Your task to perform on an android device: toggle notification dots Image 0: 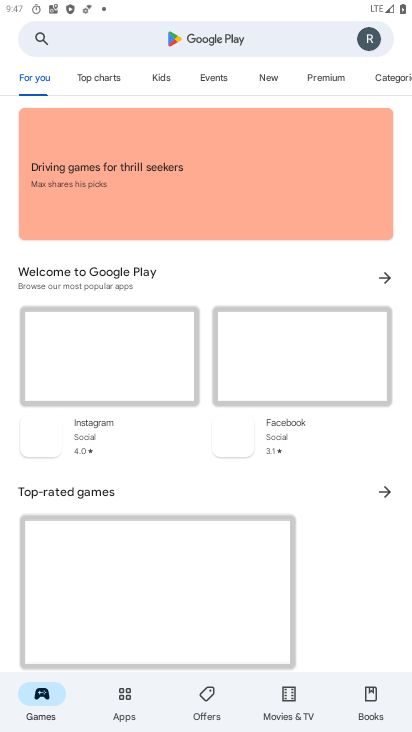
Step 0: press home button
Your task to perform on an android device: toggle notification dots Image 1: 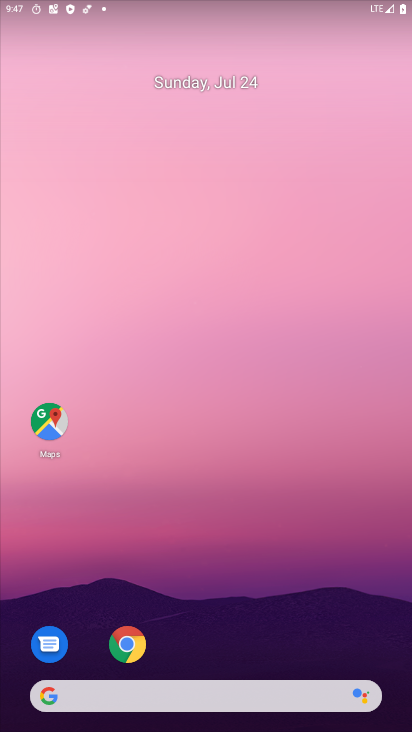
Step 1: drag from (218, 576) to (217, 289)
Your task to perform on an android device: toggle notification dots Image 2: 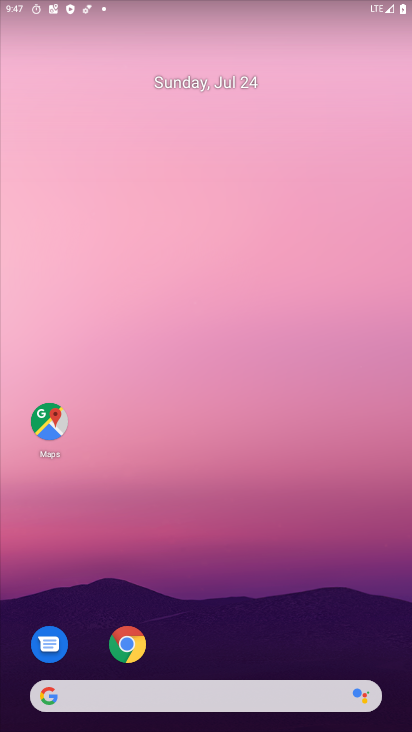
Step 2: drag from (218, 665) to (250, 169)
Your task to perform on an android device: toggle notification dots Image 3: 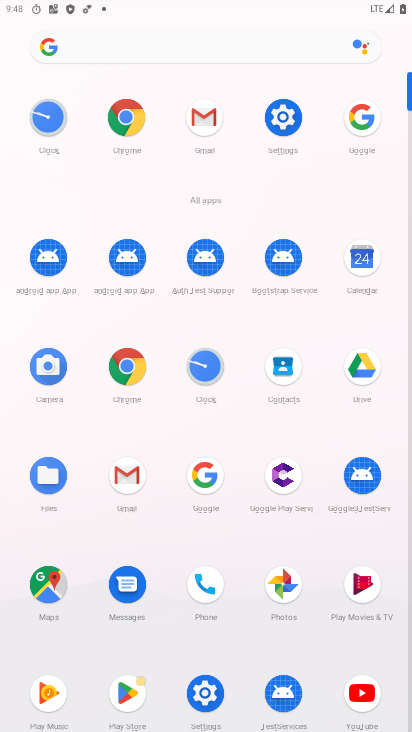
Step 3: click (291, 121)
Your task to perform on an android device: toggle notification dots Image 4: 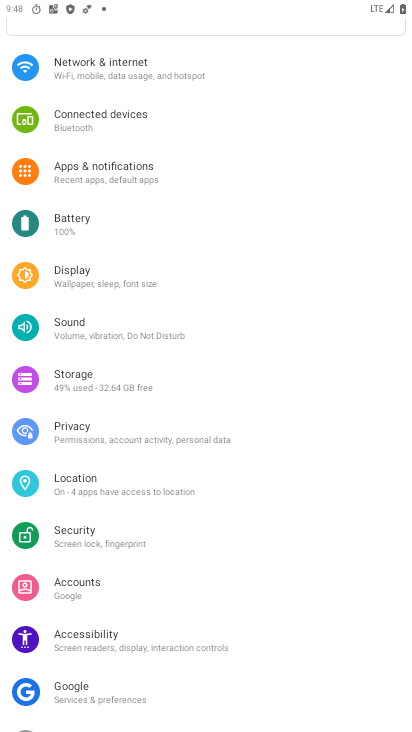
Step 4: click (125, 161)
Your task to perform on an android device: toggle notification dots Image 5: 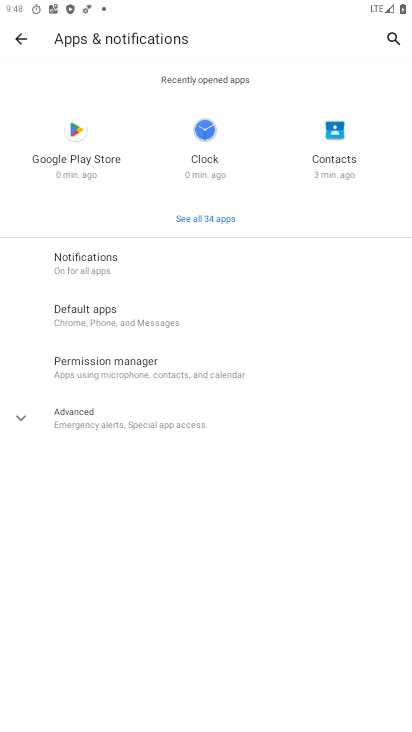
Step 5: click (89, 408)
Your task to perform on an android device: toggle notification dots Image 6: 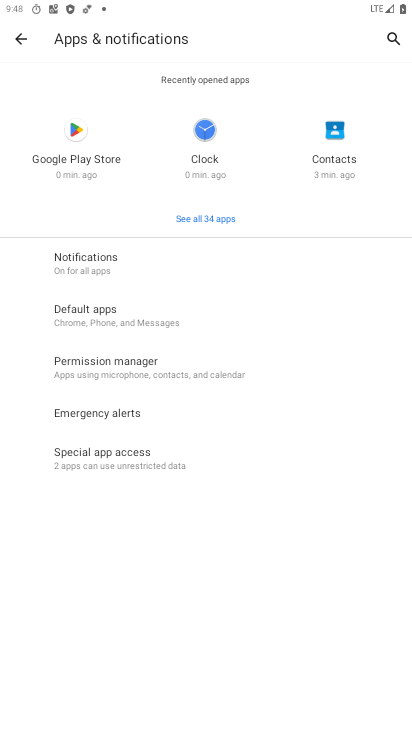
Step 6: click (85, 259)
Your task to perform on an android device: toggle notification dots Image 7: 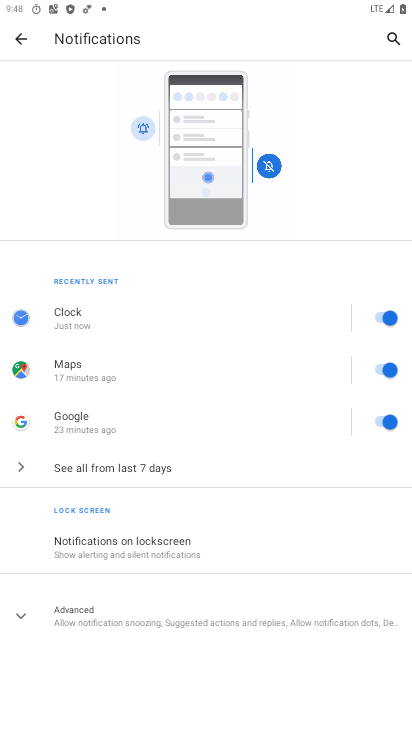
Step 7: click (95, 620)
Your task to perform on an android device: toggle notification dots Image 8: 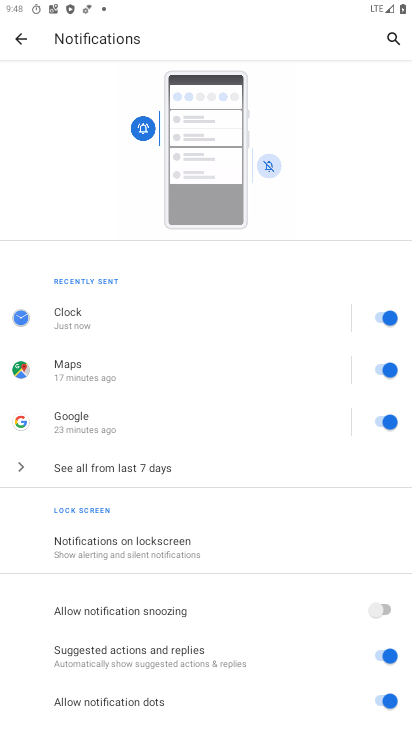
Step 8: drag from (130, 702) to (165, 373)
Your task to perform on an android device: toggle notification dots Image 9: 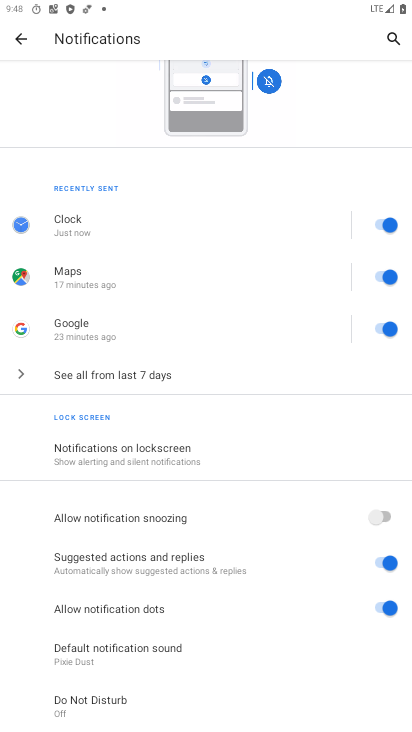
Step 9: click (388, 605)
Your task to perform on an android device: toggle notification dots Image 10: 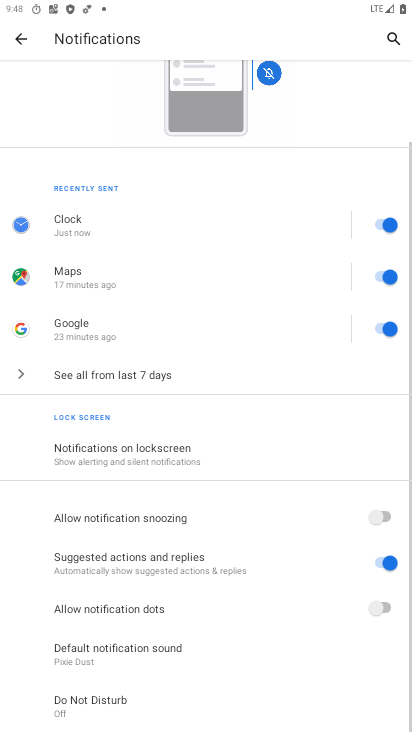
Step 10: task complete